Your task to perform on an android device: Show me recent news Image 0: 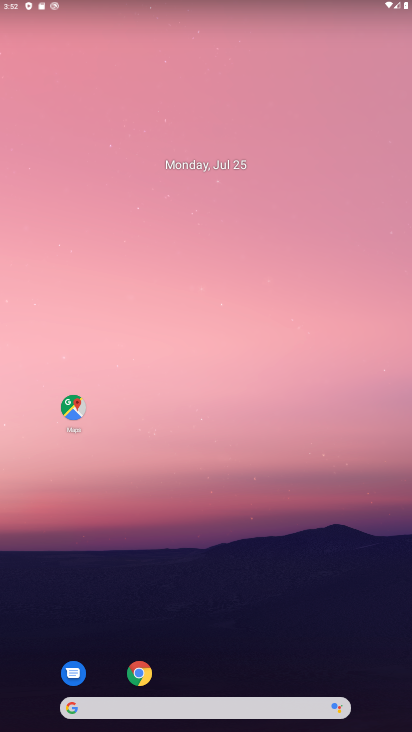
Step 0: drag from (283, 595) to (285, 49)
Your task to perform on an android device: Show me recent news Image 1: 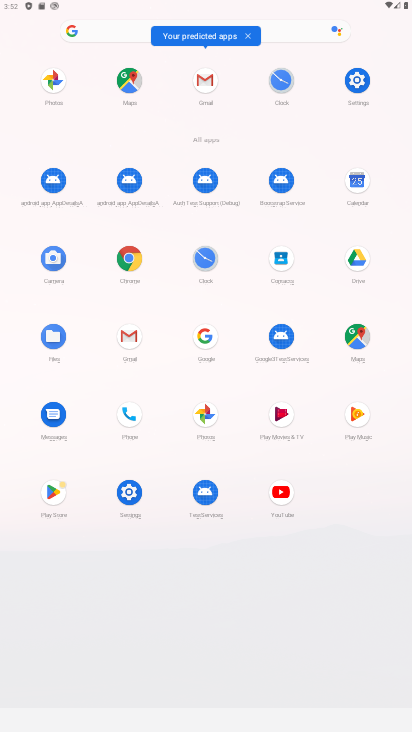
Step 1: click (359, 87)
Your task to perform on an android device: Show me recent news Image 2: 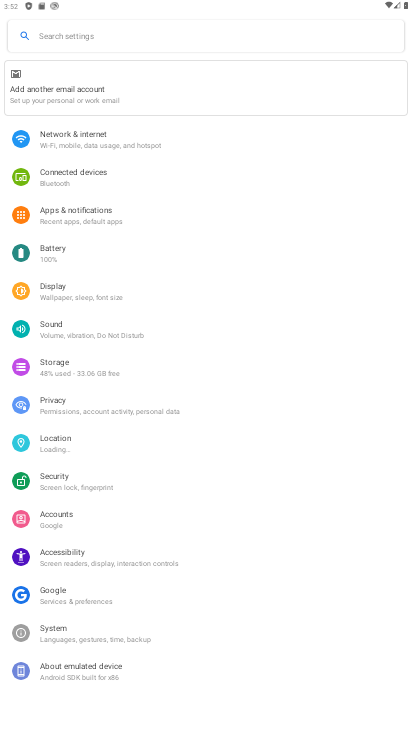
Step 2: click (56, 291)
Your task to perform on an android device: Show me recent news Image 3: 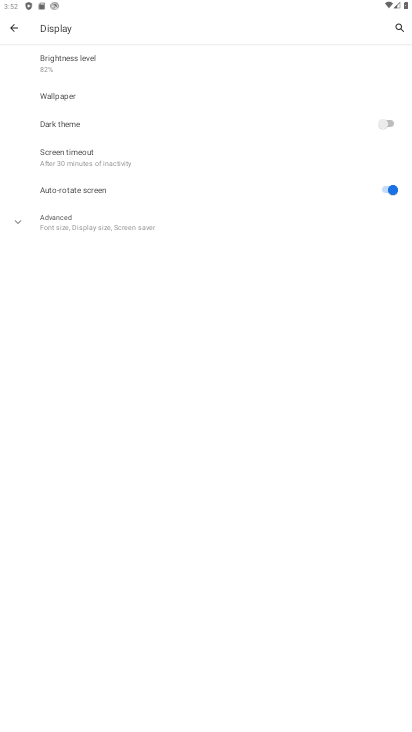
Step 3: click (16, 222)
Your task to perform on an android device: Show me recent news Image 4: 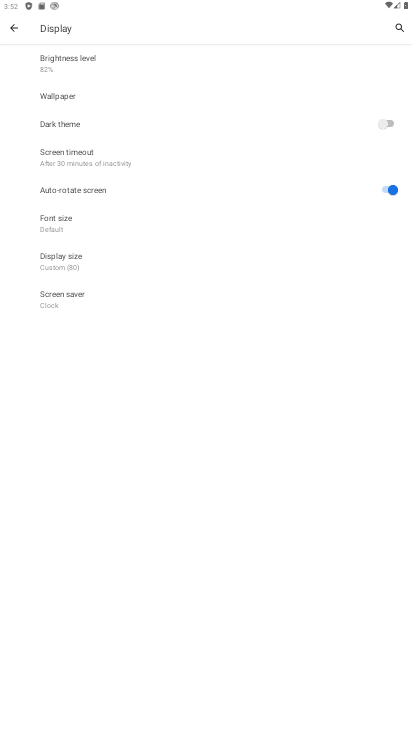
Step 4: click (52, 259)
Your task to perform on an android device: Show me recent news Image 5: 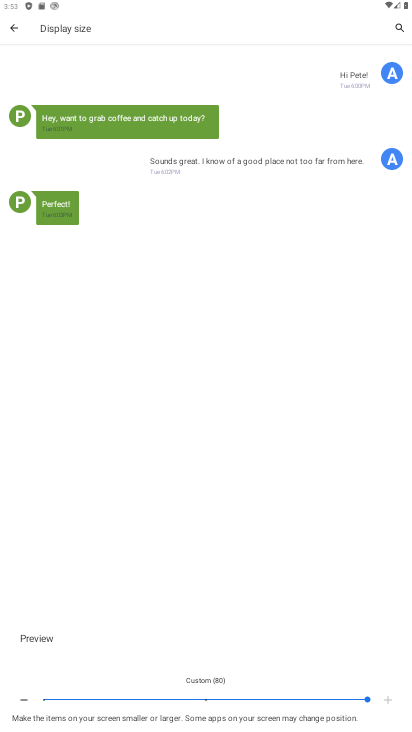
Step 5: click (23, 701)
Your task to perform on an android device: Show me recent news Image 6: 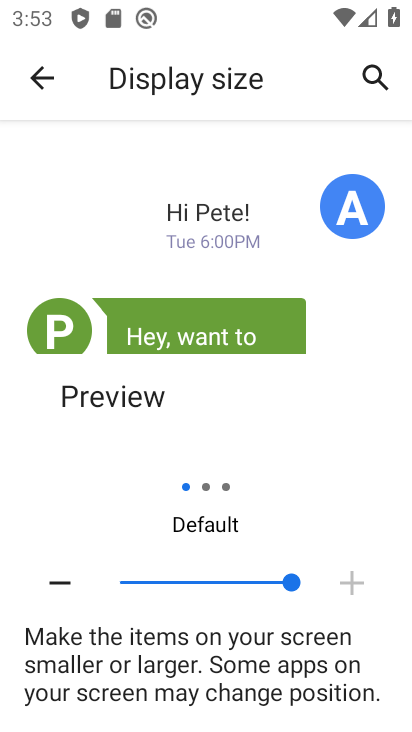
Step 6: click (59, 580)
Your task to perform on an android device: Show me recent news Image 7: 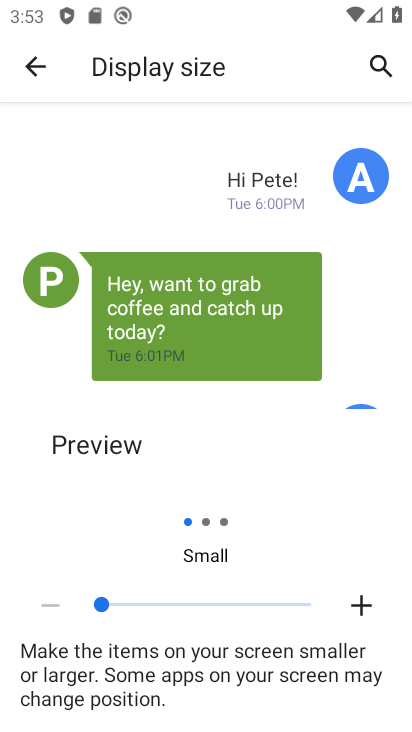
Step 7: click (36, 66)
Your task to perform on an android device: Show me recent news Image 8: 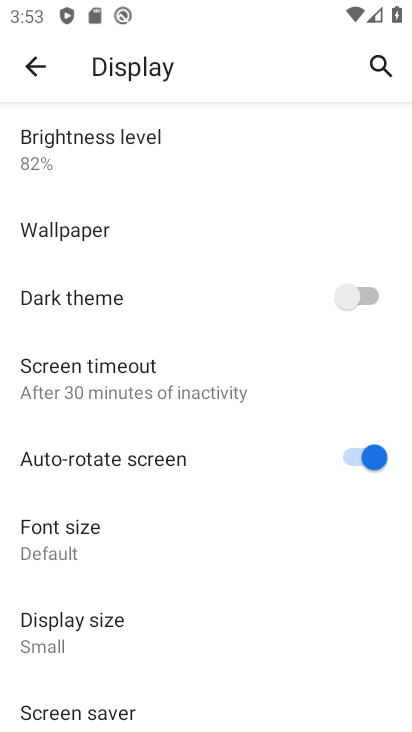
Step 8: task complete